Your task to perform on an android device: Open internet settings Image 0: 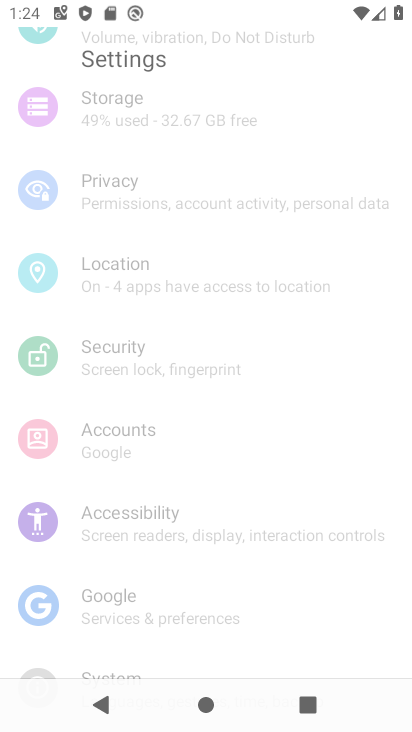
Step 0: drag from (241, 584) to (204, 1)
Your task to perform on an android device: Open internet settings Image 1: 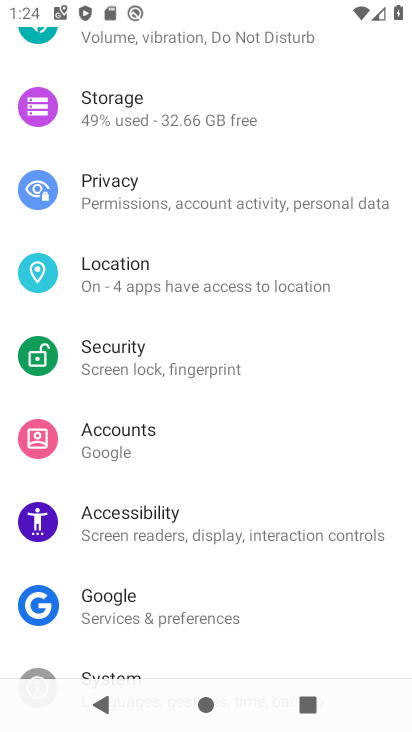
Step 1: drag from (234, 172) to (255, 634)
Your task to perform on an android device: Open internet settings Image 2: 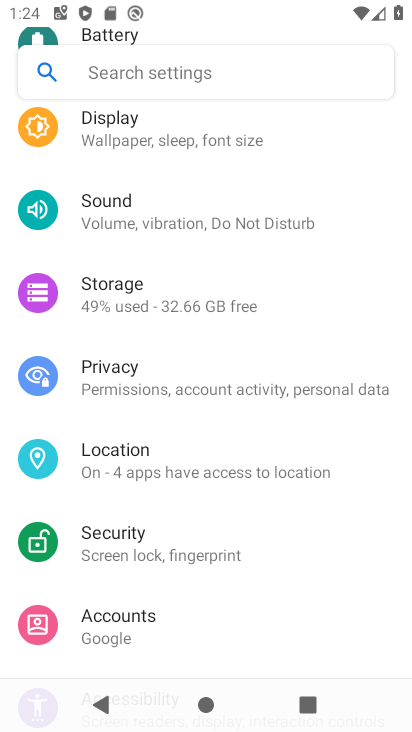
Step 2: drag from (226, 146) to (292, 679)
Your task to perform on an android device: Open internet settings Image 3: 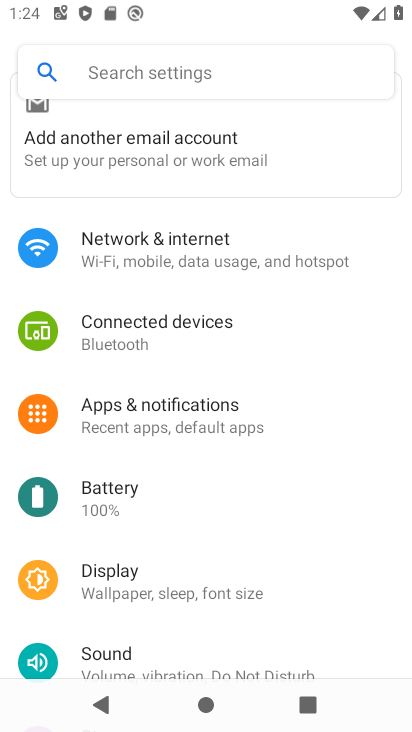
Step 3: click (168, 216)
Your task to perform on an android device: Open internet settings Image 4: 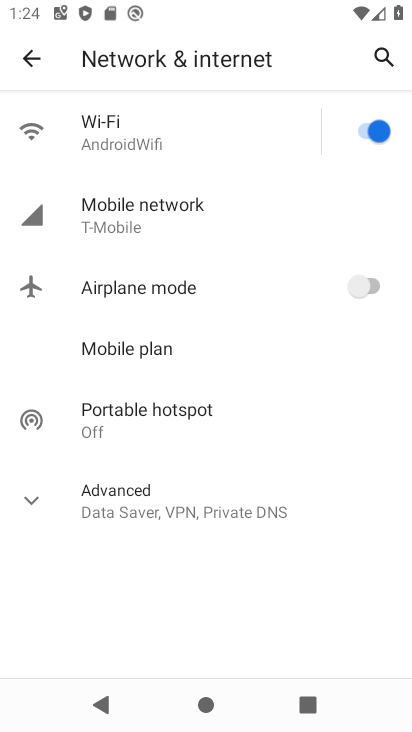
Step 4: task complete